Your task to perform on an android device: Open Yahoo.com Image 0: 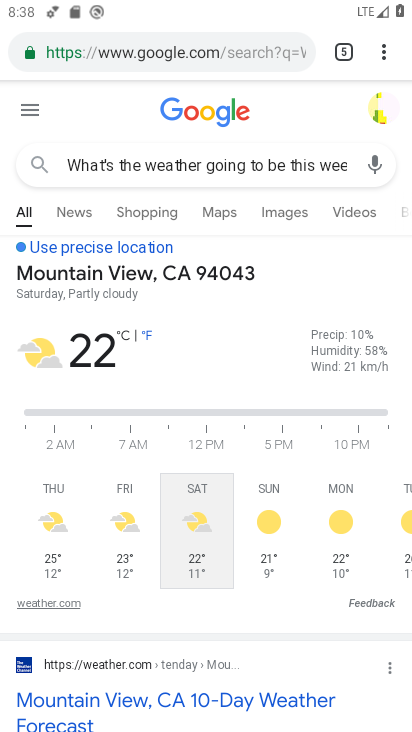
Step 0: press home button
Your task to perform on an android device: Open Yahoo.com Image 1: 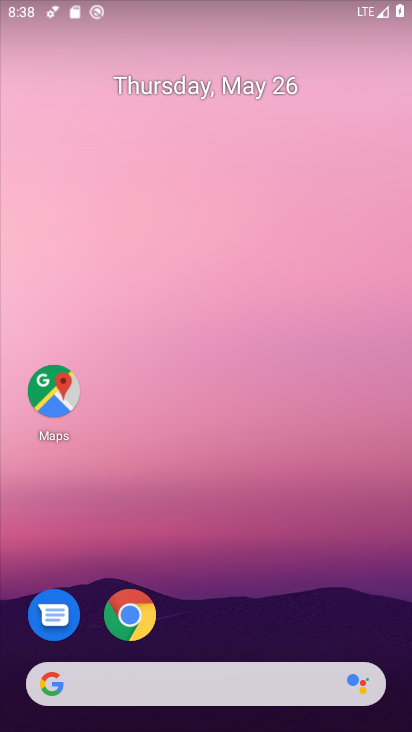
Step 1: drag from (191, 612) to (198, 299)
Your task to perform on an android device: Open Yahoo.com Image 2: 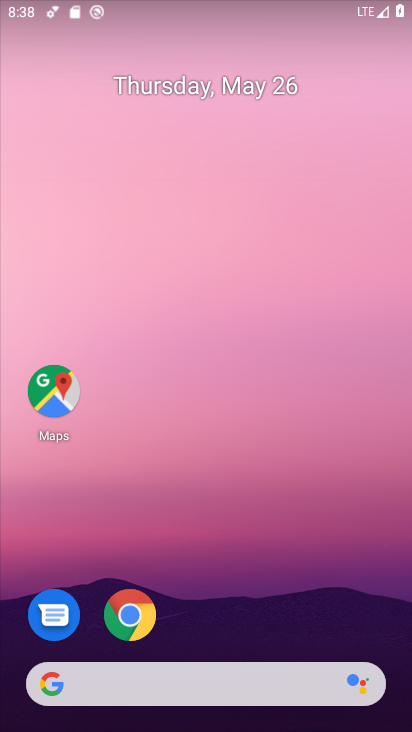
Step 2: drag from (214, 642) to (254, 284)
Your task to perform on an android device: Open Yahoo.com Image 3: 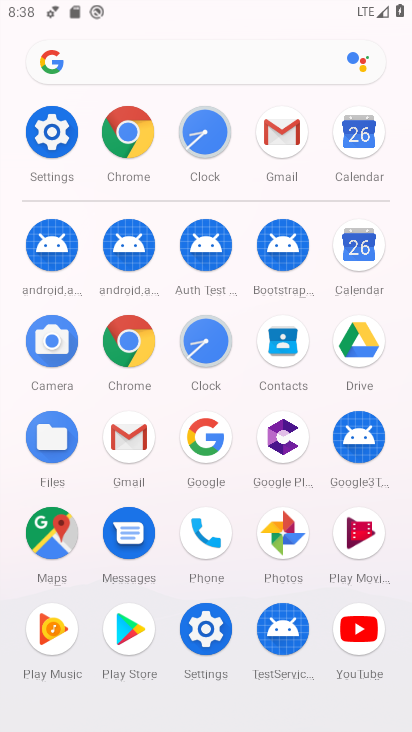
Step 3: click (119, 340)
Your task to perform on an android device: Open Yahoo.com Image 4: 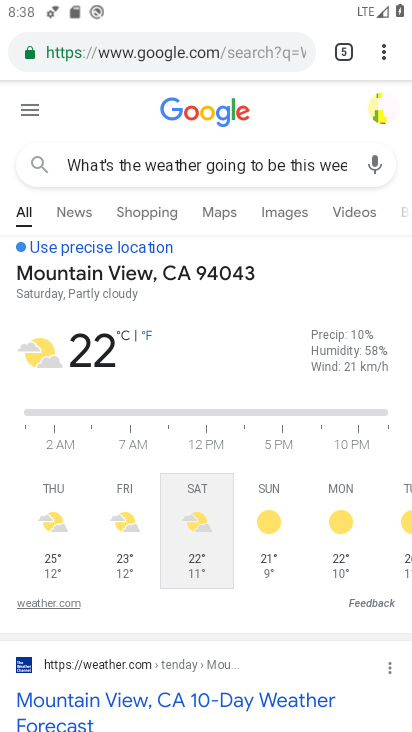
Step 4: click (389, 46)
Your task to perform on an android device: Open Yahoo.com Image 5: 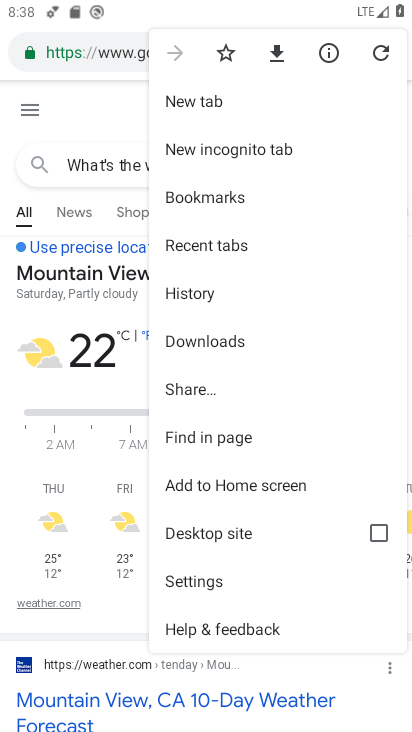
Step 5: click (195, 103)
Your task to perform on an android device: Open Yahoo.com Image 6: 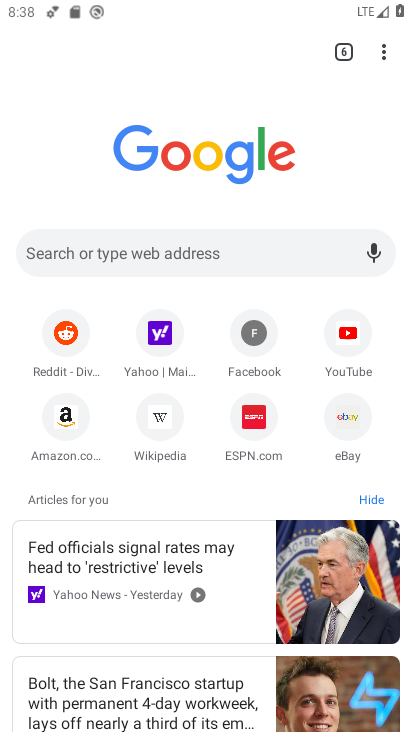
Step 6: click (150, 330)
Your task to perform on an android device: Open Yahoo.com Image 7: 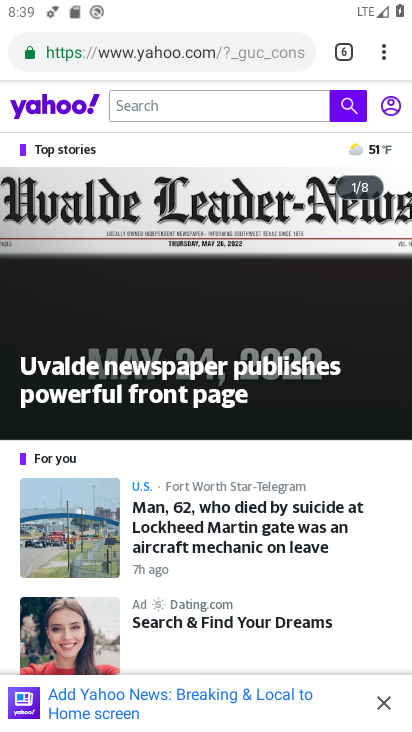
Step 7: task complete